Your task to perform on an android device: turn on sleep mode Image 0: 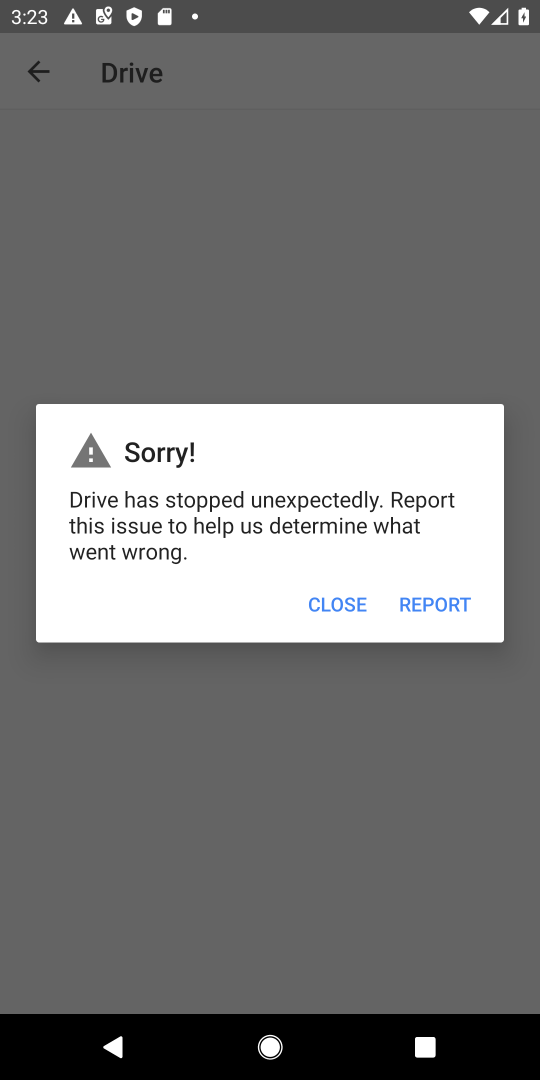
Step 0: click (330, 609)
Your task to perform on an android device: turn on sleep mode Image 1: 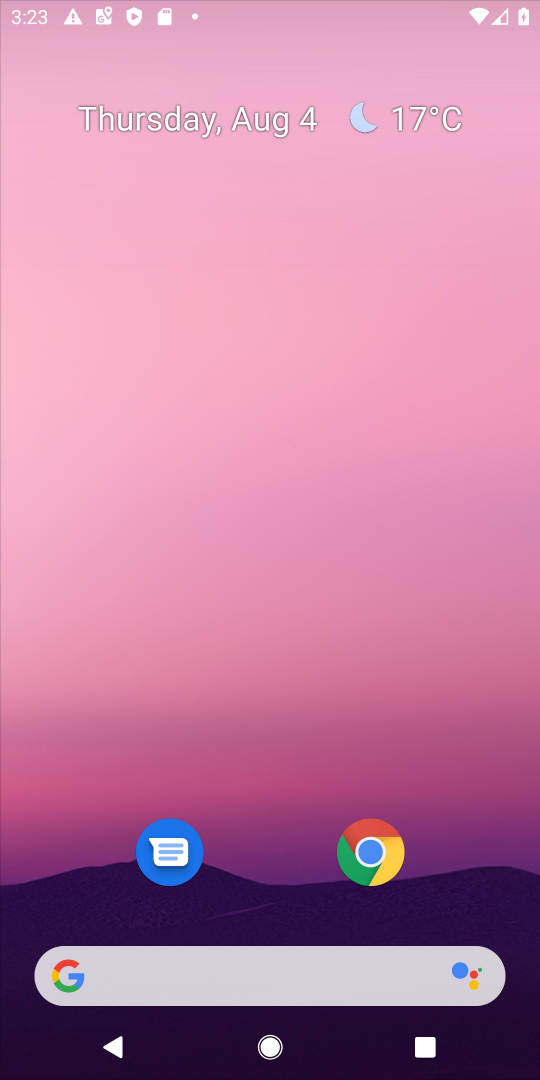
Step 1: drag from (302, 641) to (384, 59)
Your task to perform on an android device: turn on sleep mode Image 2: 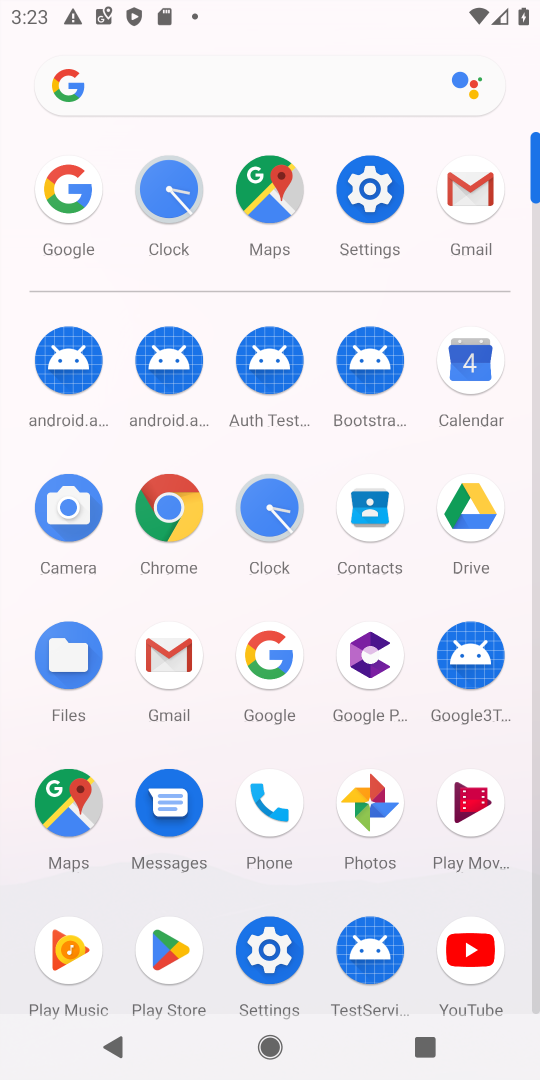
Step 2: click (376, 181)
Your task to perform on an android device: turn on sleep mode Image 3: 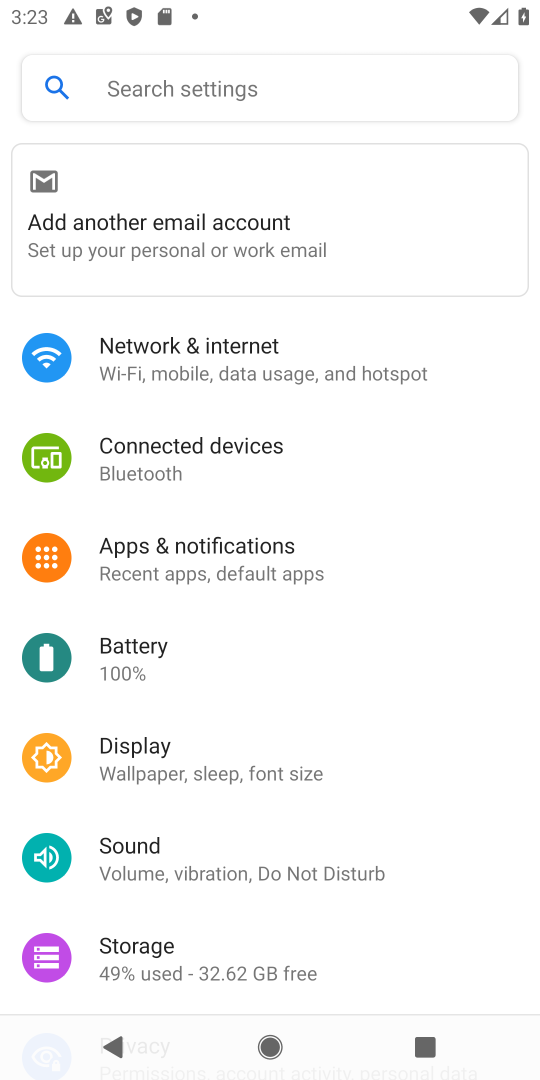
Step 3: click (214, 79)
Your task to perform on an android device: turn on sleep mode Image 4: 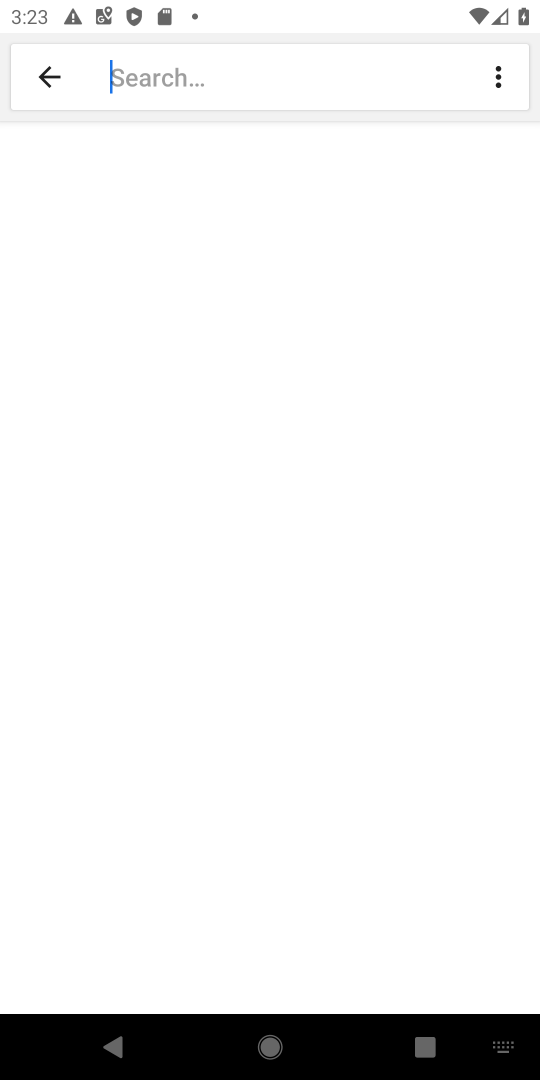
Step 4: type "sleep mode"
Your task to perform on an android device: turn on sleep mode Image 5: 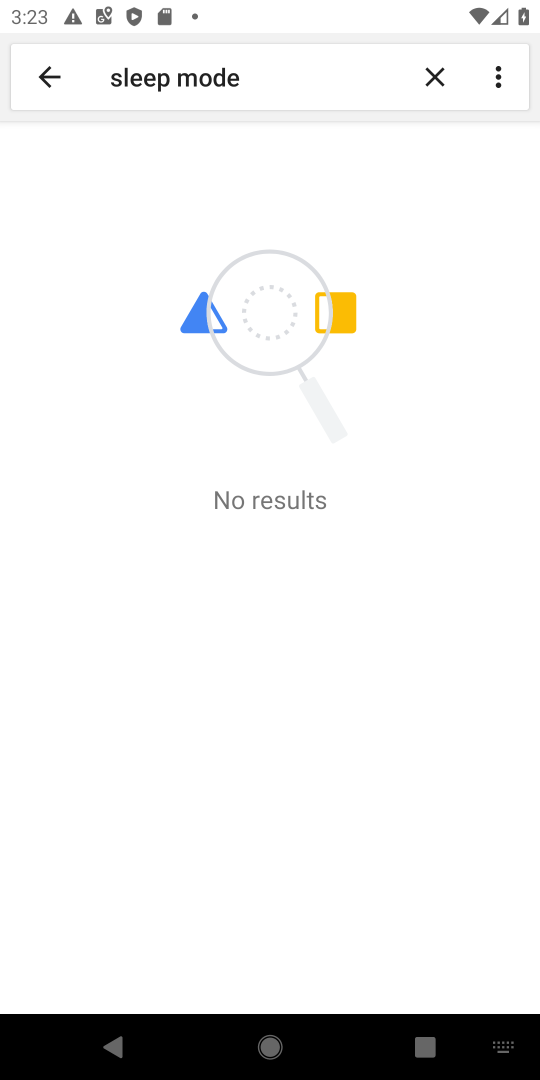
Step 5: task complete